Your task to perform on an android device: Open settings on Google Maps Image 0: 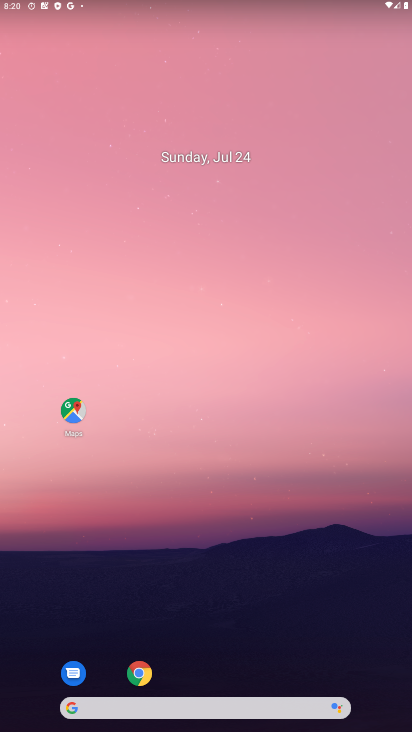
Step 0: click (61, 410)
Your task to perform on an android device: Open settings on Google Maps Image 1: 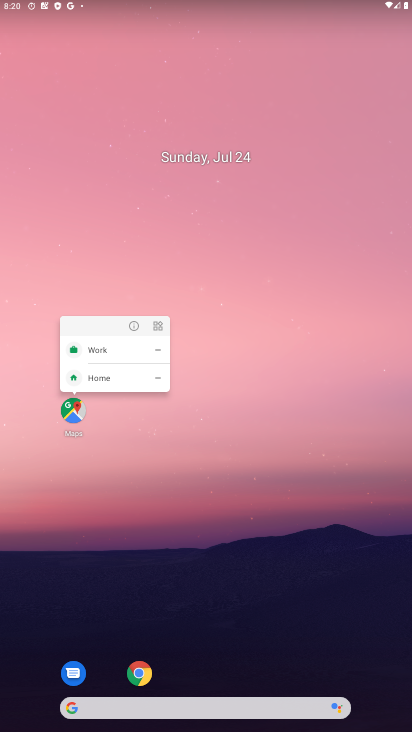
Step 1: click (67, 414)
Your task to perform on an android device: Open settings on Google Maps Image 2: 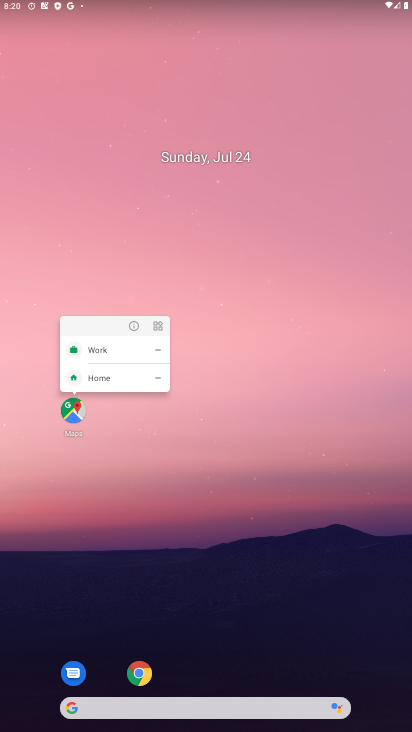
Step 2: click (67, 414)
Your task to perform on an android device: Open settings on Google Maps Image 3: 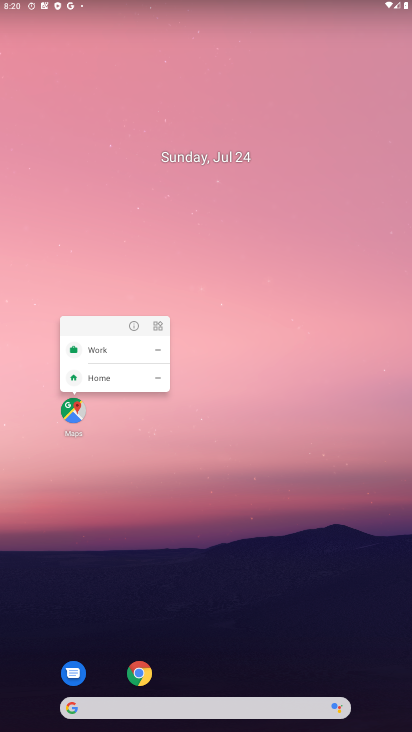
Step 3: click (66, 412)
Your task to perform on an android device: Open settings on Google Maps Image 4: 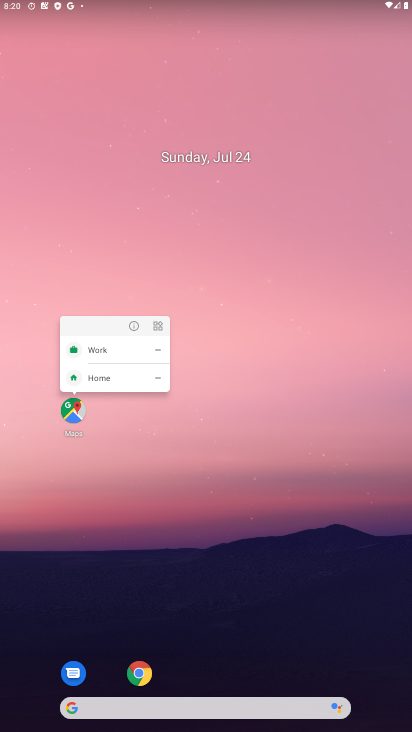
Step 4: click (66, 412)
Your task to perform on an android device: Open settings on Google Maps Image 5: 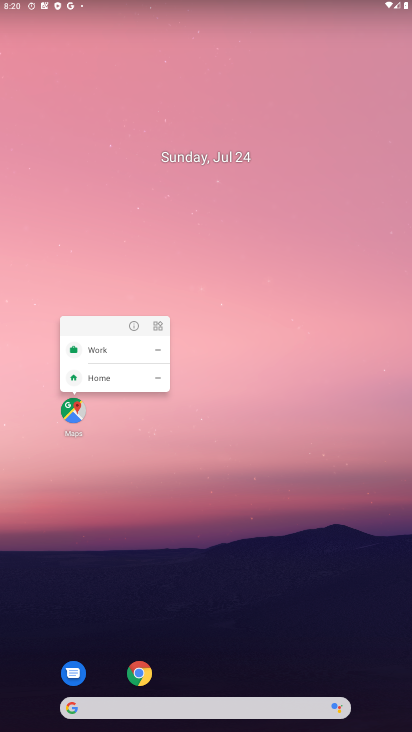
Step 5: task complete